Your task to perform on an android device: change your default location settings in chrome Image 0: 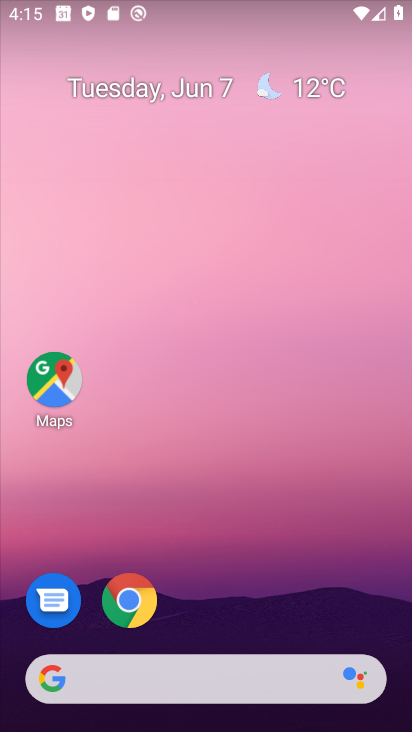
Step 0: click (120, 603)
Your task to perform on an android device: change your default location settings in chrome Image 1: 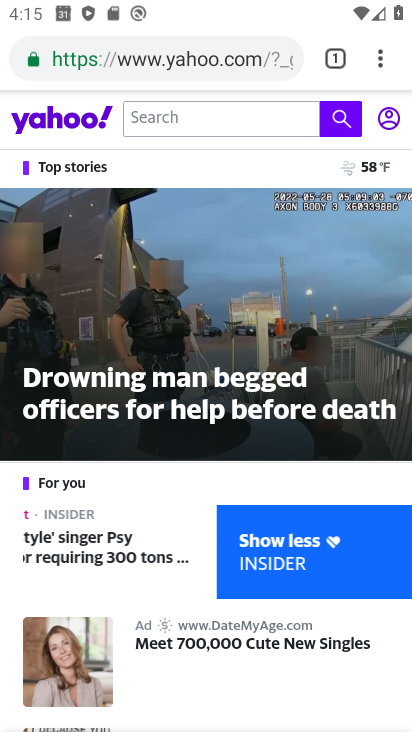
Step 1: click (380, 58)
Your task to perform on an android device: change your default location settings in chrome Image 2: 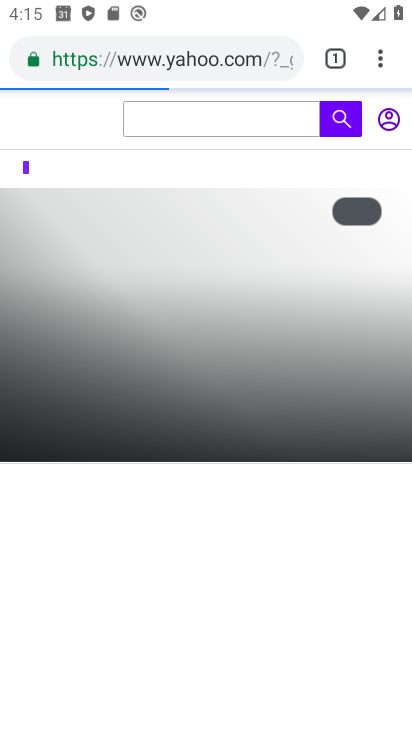
Step 2: click (384, 60)
Your task to perform on an android device: change your default location settings in chrome Image 3: 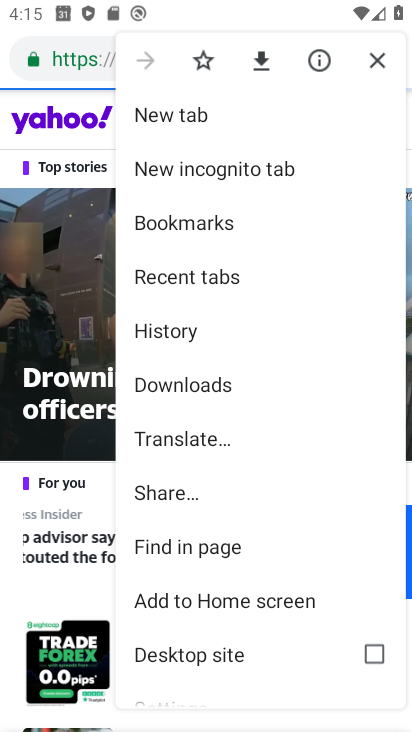
Step 3: drag from (177, 654) to (192, 194)
Your task to perform on an android device: change your default location settings in chrome Image 4: 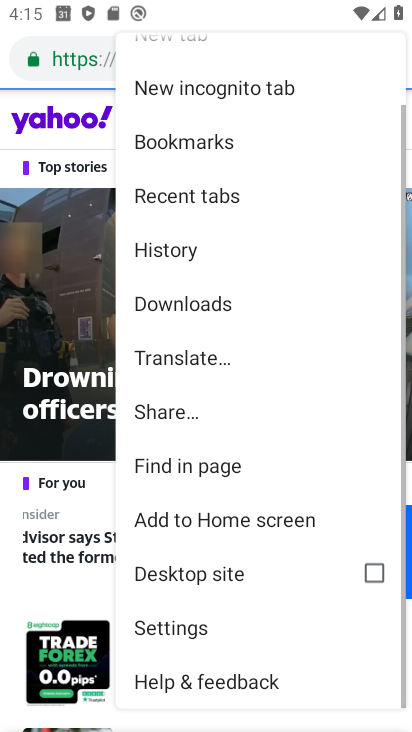
Step 4: click (197, 616)
Your task to perform on an android device: change your default location settings in chrome Image 5: 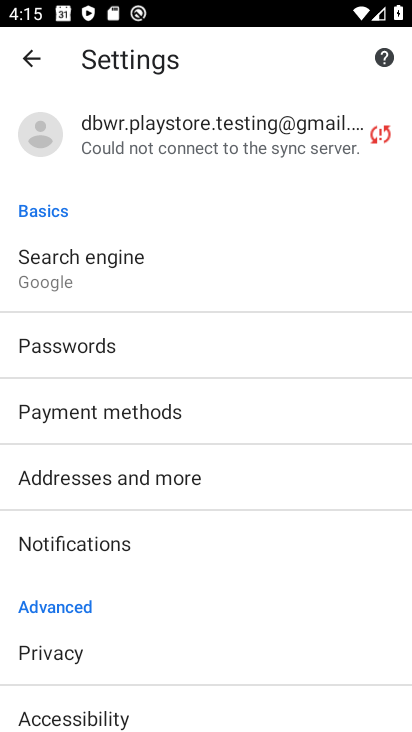
Step 5: drag from (121, 698) to (171, 217)
Your task to perform on an android device: change your default location settings in chrome Image 6: 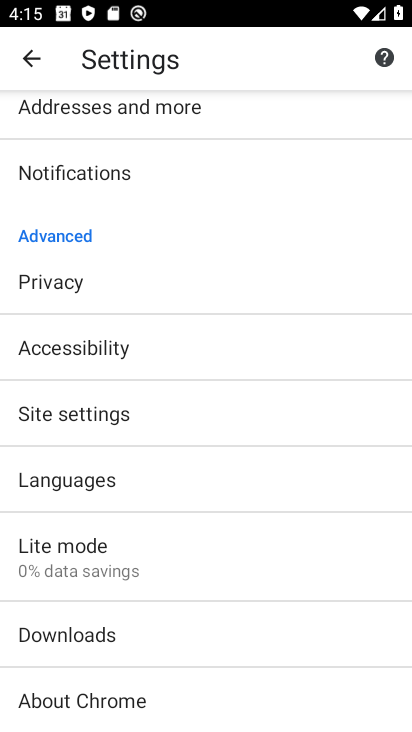
Step 6: drag from (70, 652) to (105, 282)
Your task to perform on an android device: change your default location settings in chrome Image 7: 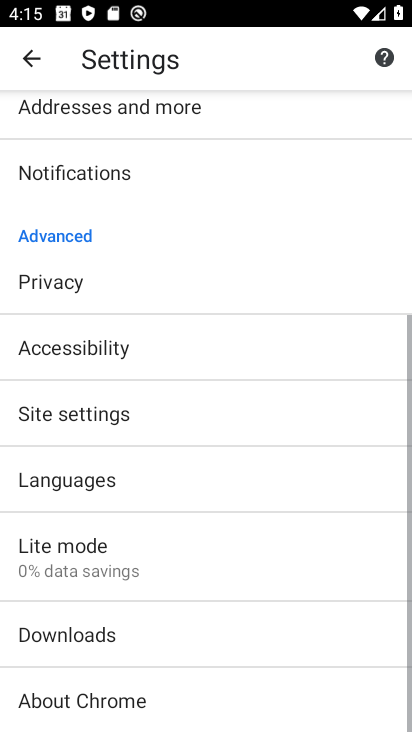
Step 7: click (109, 407)
Your task to perform on an android device: change your default location settings in chrome Image 8: 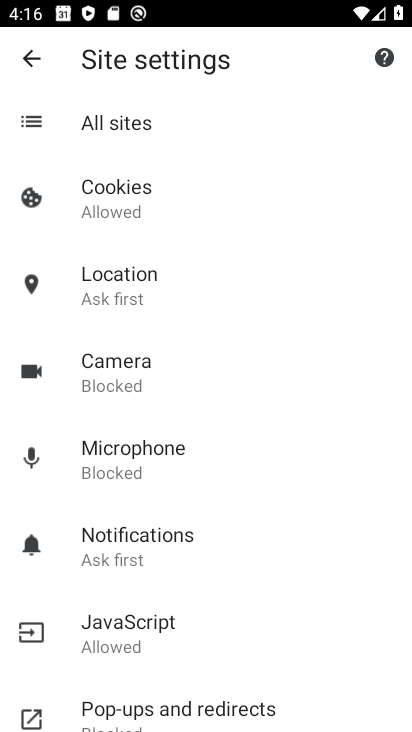
Step 8: click (114, 283)
Your task to perform on an android device: change your default location settings in chrome Image 9: 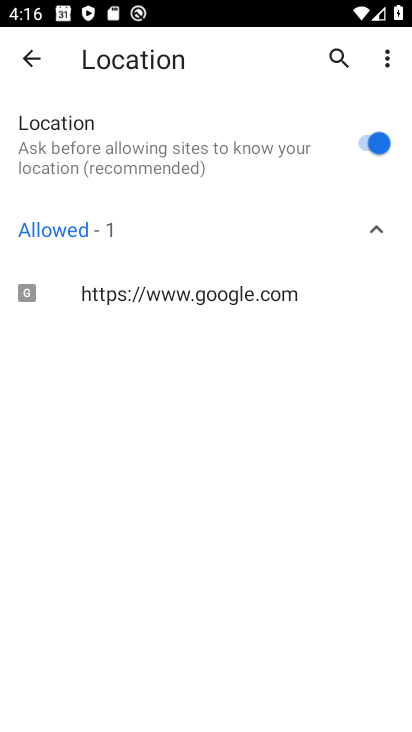
Step 9: click (369, 146)
Your task to perform on an android device: change your default location settings in chrome Image 10: 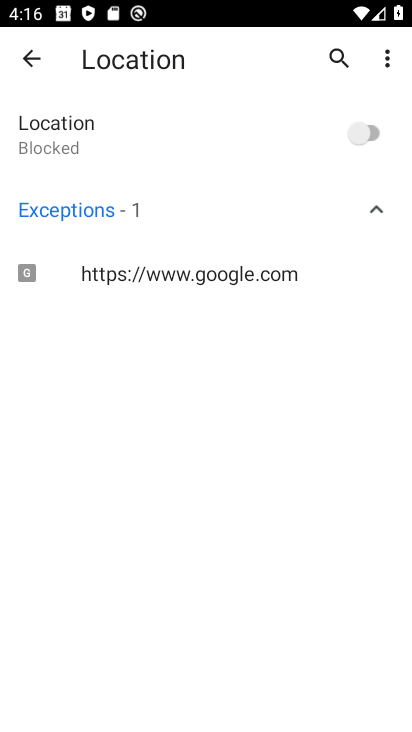
Step 10: task complete